Your task to perform on an android device: Open Chrome and go to settings Image 0: 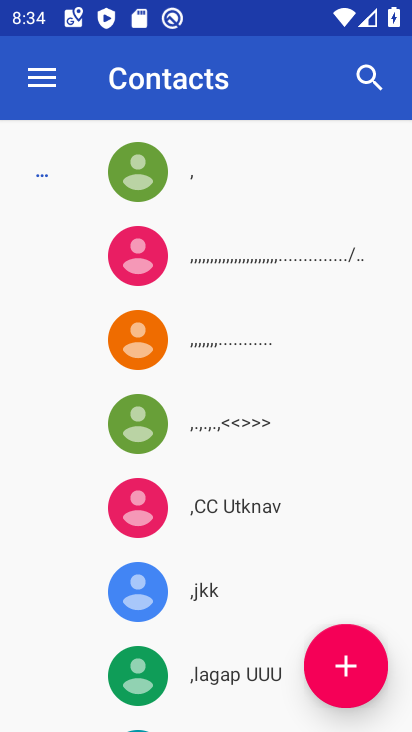
Step 0: press home button
Your task to perform on an android device: Open Chrome and go to settings Image 1: 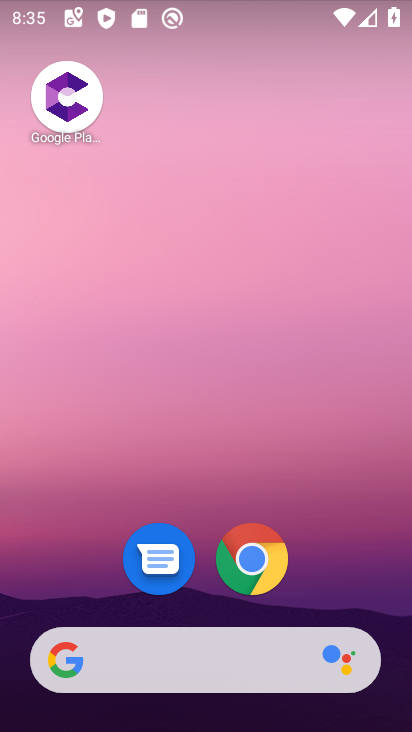
Step 1: drag from (354, 582) to (293, 1)
Your task to perform on an android device: Open Chrome and go to settings Image 2: 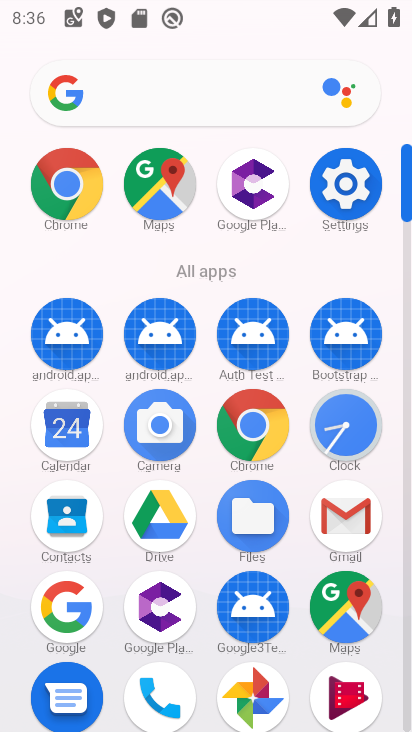
Step 2: click (90, 181)
Your task to perform on an android device: Open Chrome and go to settings Image 3: 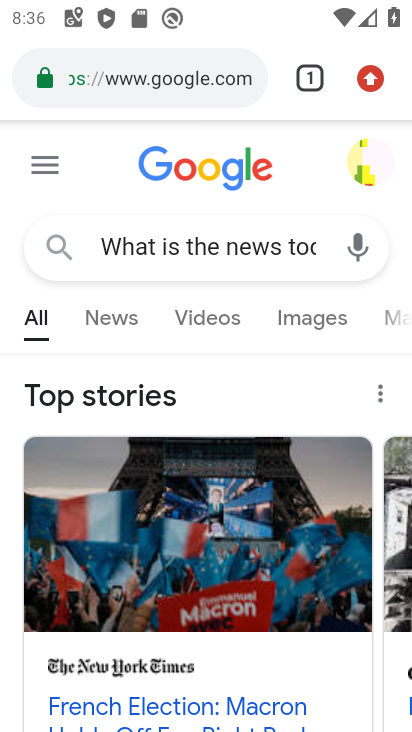
Step 3: task complete